Your task to perform on an android device: turn vacation reply on in the gmail app Image 0: 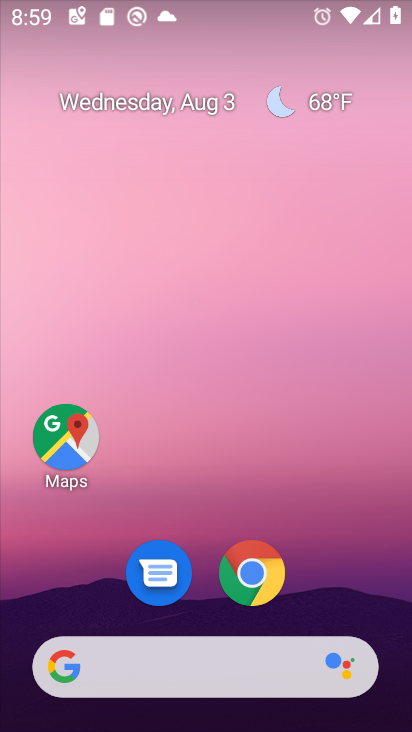
Step 0: drag from (335, 606) to (314, 51)
Your task to perform on an android device: turn vacation reply on in the gmail app Image 1: 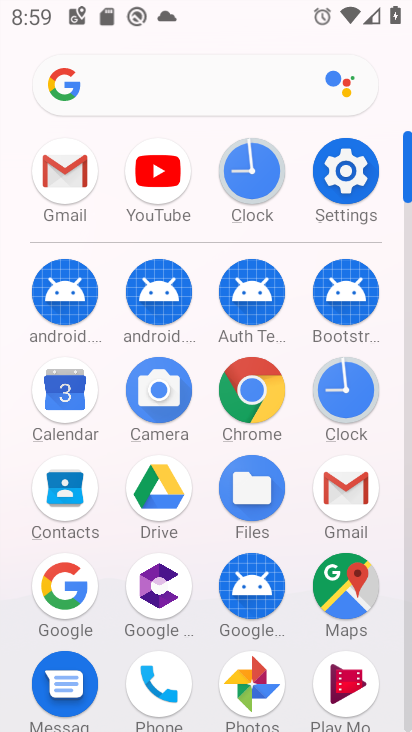
Step 1: click (68, 190)
Your task to perform on an android device: turn vacation reply on in the gmail app Image 2: 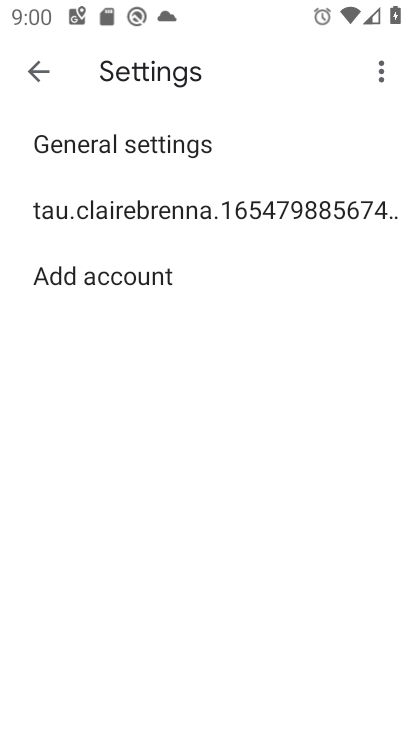
Step 2: click (80, 212)
Your task to perform on an android device: turn vacation reply on in the gmail app Image 3: 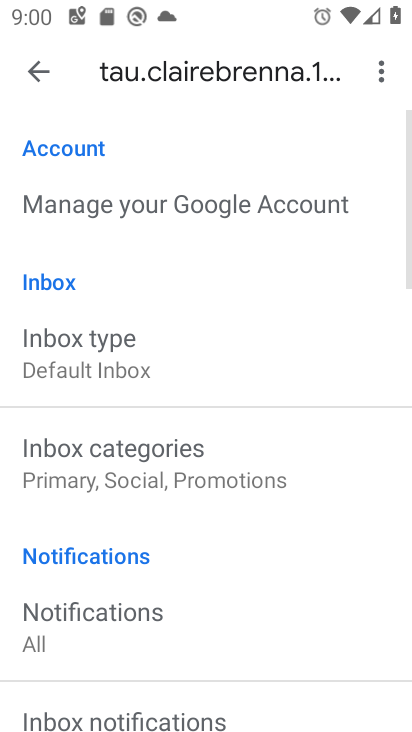
Step 3: drag from (297, 514) to (226, 32)
Your task to perform on an android device: turn vacation reply on in the gmail app Image 4: 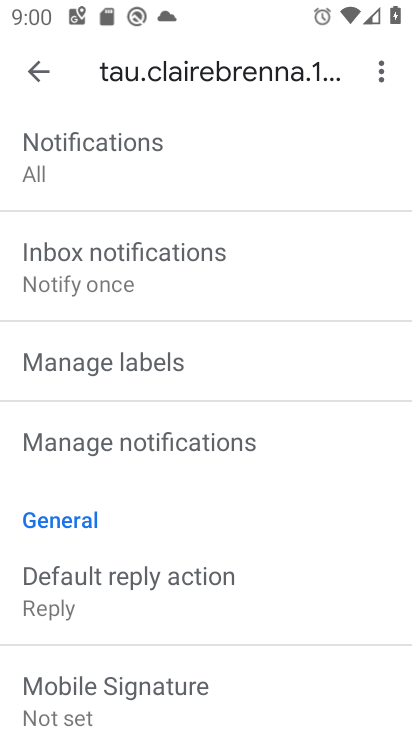
Step 4: drag from (232, 522) to (232, 212)
Your task to perform on an android device: turn vacation reply on in the gmail app Image 5: 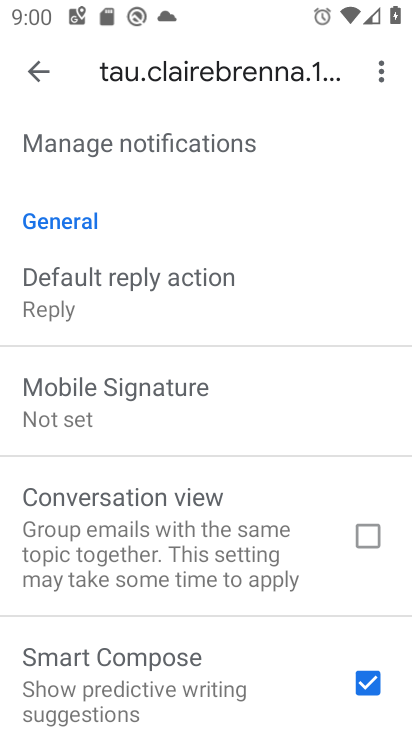
Step 5: drag from (163, 552) to (151, 171)
Your task to perform on an android device: turn vacation reply on in the gmail app Image 6: 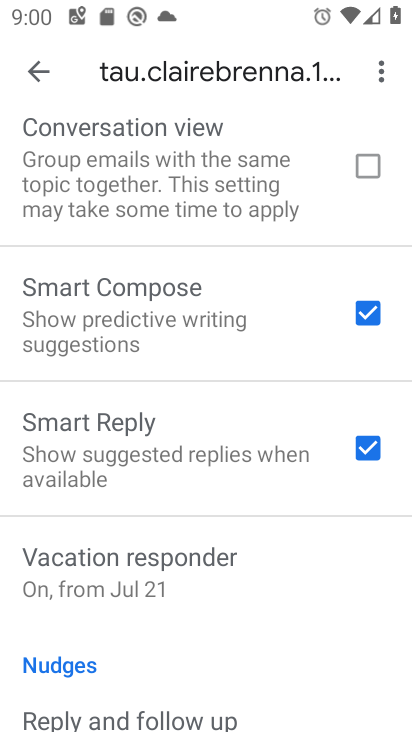
Step 6: click (152, 560)
Your task to perform on an android device: turn vacation reply on in the gmail app Image 7: 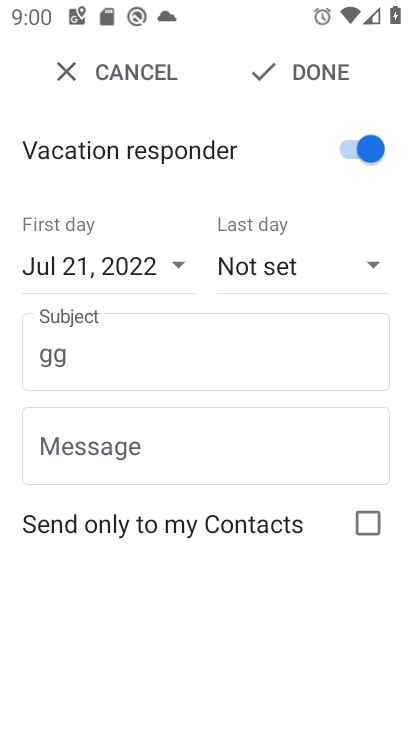
Step 7: click (302, 78)
Your task to perform on an android device: turn vacation reply on in the gmail app Image 8: 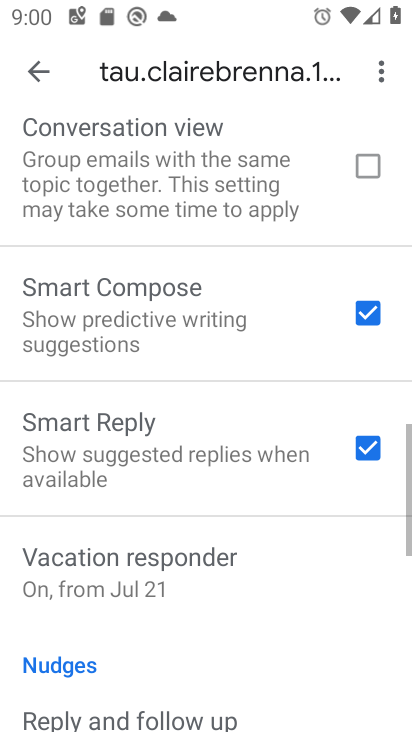
Step 8: task complete